Your task to perform on an android device: Search for vegetarian restaurants on Maps Image 0: 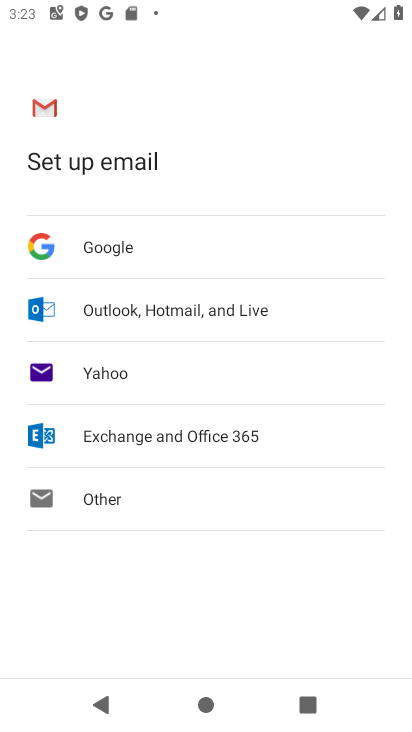
Step 0: press home button
Your task to perform on an android device: Search for vegetarian restaurants on Maps Image 1: 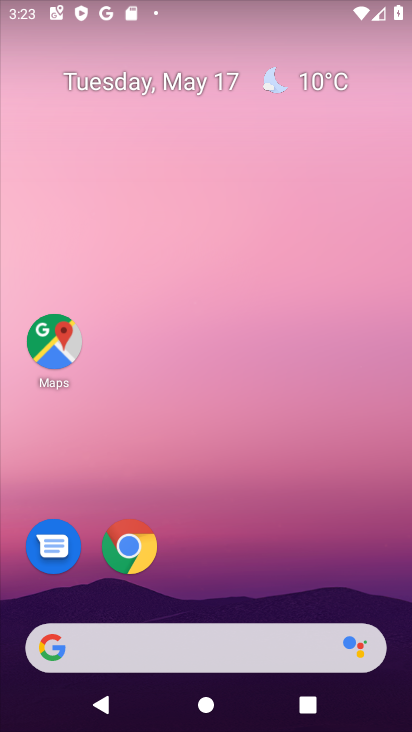
Step 1: click (66, 343)
Your task to perform on an android device: Search for vegetarian restaurants on Maps Image 2: 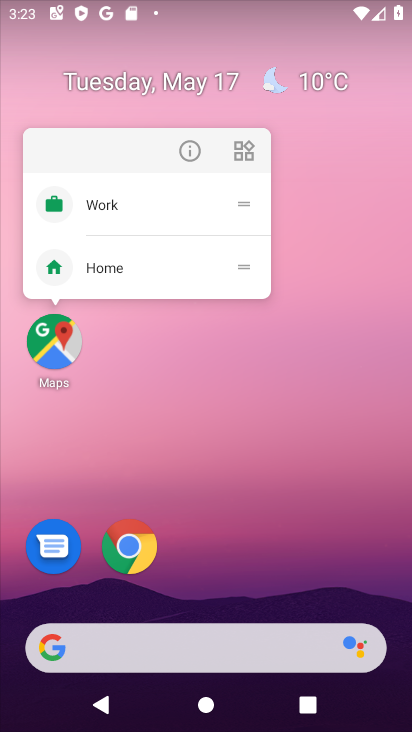
Step 2: click (67, 343)
Your task to perform on an android device: Search for vegetarian restaurants on Maps Image 3: 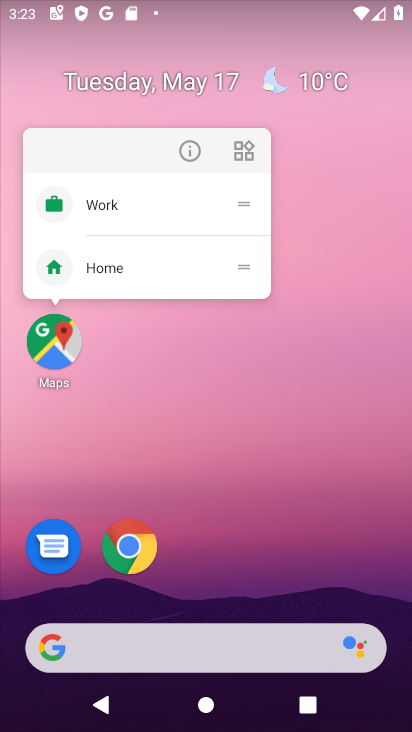
Step 3: click (66, 343)
Your task to perform on an android device: Search for vegetarian restaurants on Maps Image 4: 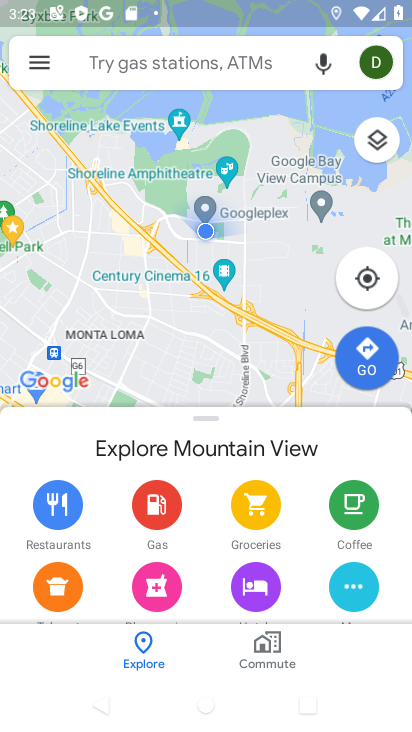
Step 4: click (140, 67)
Your task to perform on an android device: Search for vegetarian restaurants on Maps Image 5: 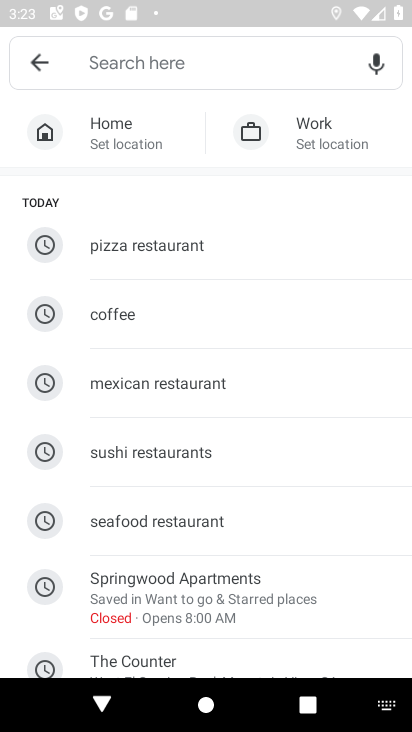
Step 5: type "vegetarian restaurants"
Your task to perform on an android device: Search for vegetarian restaurants on Maps Image 6: 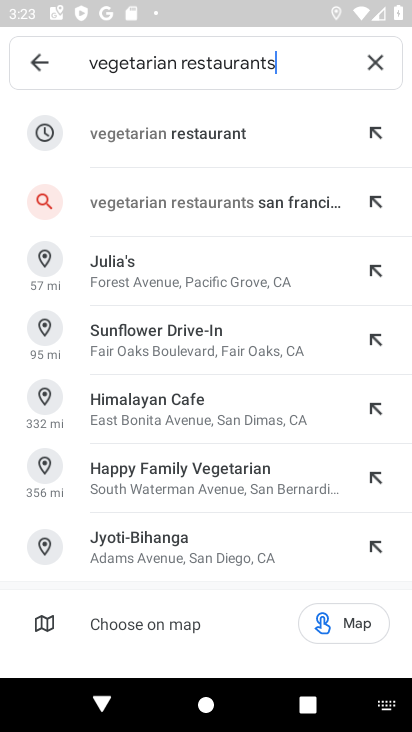
Step 6: click (199, 147)
Your task to perform on an android device: Search for vegetarian restaurants on Maps Image 7: 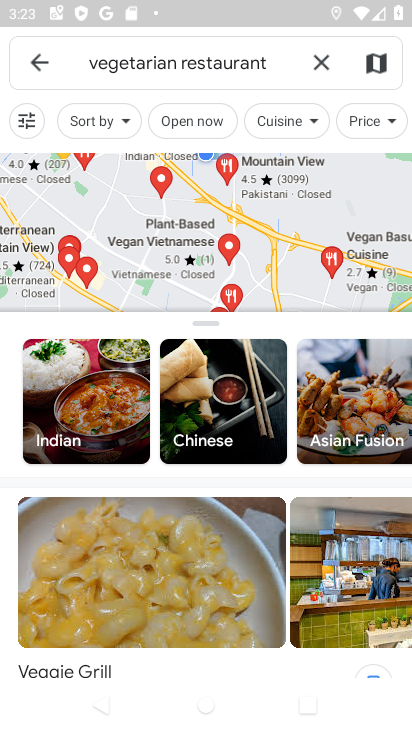
Step 7: task complete